Your task to perform on an android device: Go to display settings Image 0: 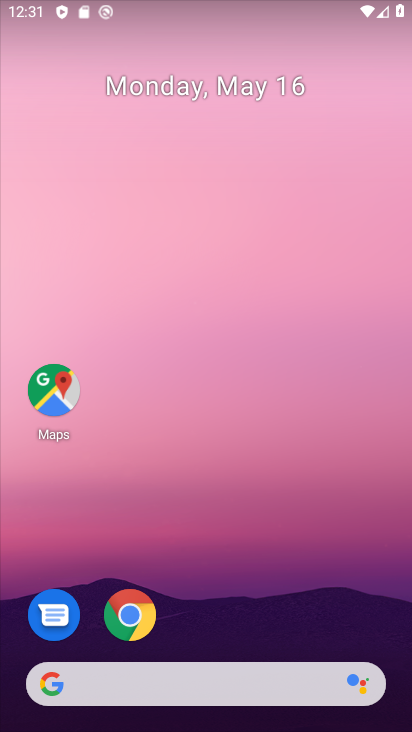
Step 0: drag from (215, 645) to (251, 158)
Your task to perform on an android device: Go to display settings Image 1: 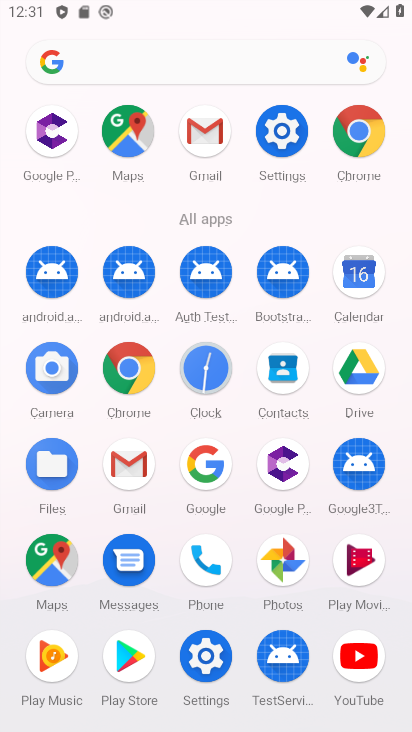
Step 1: click (276, 128)
Your task to perform on an android device: Go to display settings Image 2: 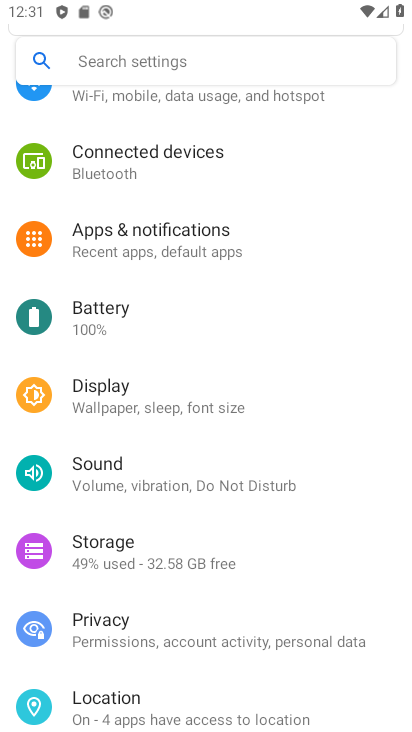
Step 2: click (129, 410)
Your task to perform on an android device: Go to display settings Image 3: 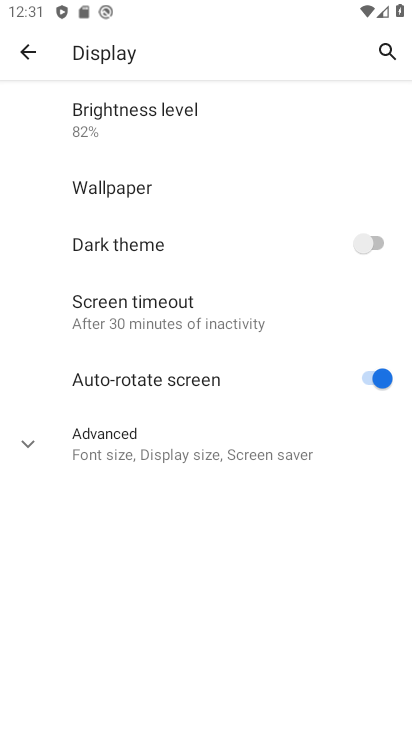
Step 3: task complete